Your task to perform on an android device: Do I have any events this weekend? Image 0: 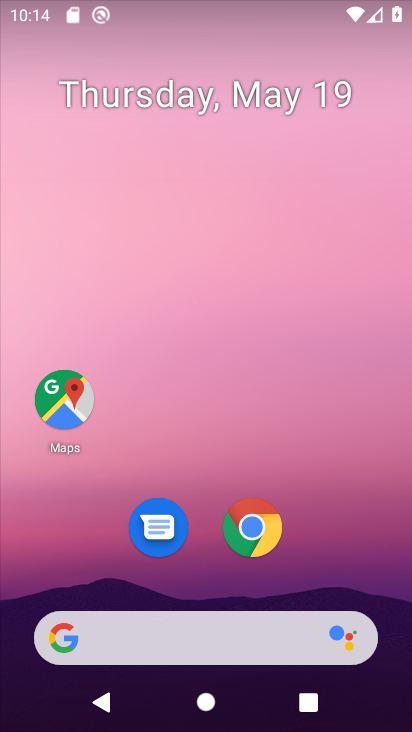
Step 0: drag from (377, 585) to (310, 174)
Your task to perform on an android device: Do I have any events this weekend? Image 1: 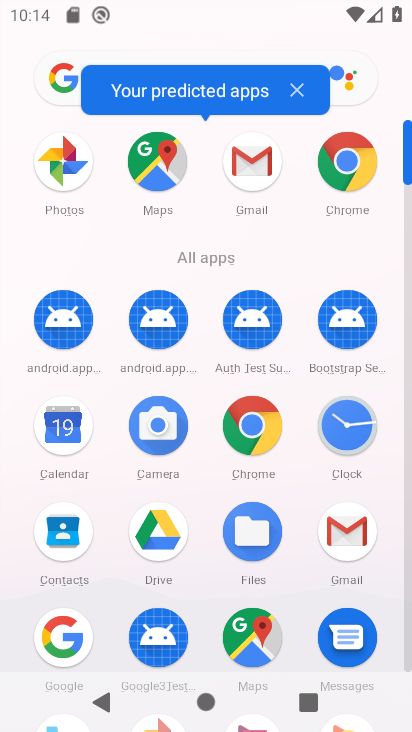
Step 1: click (50, 431)
Your task to perform on an android device: Do I have any events this weekend? Image 2: 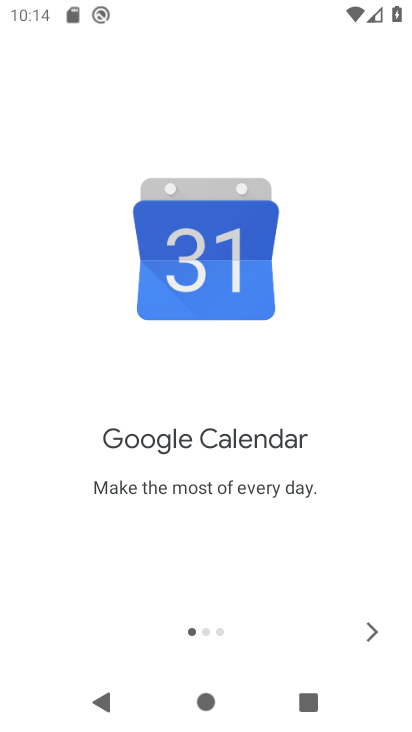
Step 2: click (376, 631)
Your task to perform on an android device: Do I have any events this weekend? Image 3: 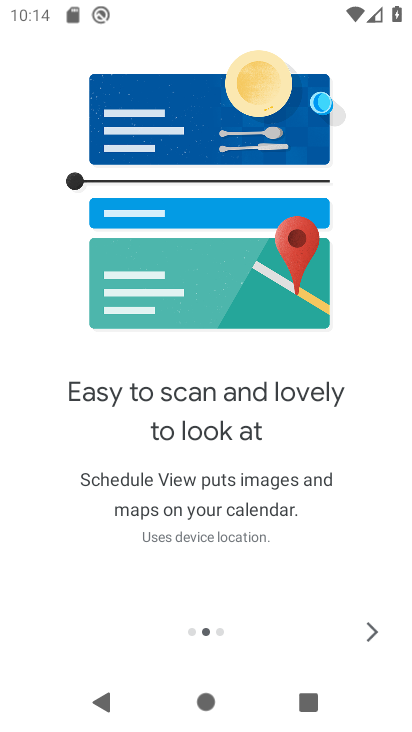
Step 3: click (376, 631)
Your task to perform on an android device: Do I have any events this weekend? Image 4: 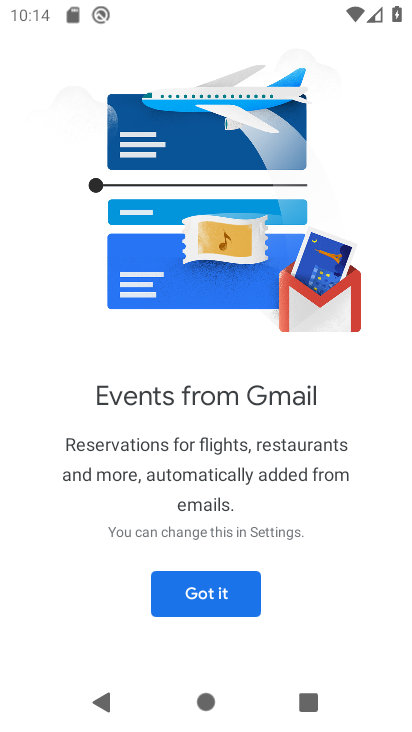
Step 4: click (376, 631)
Your task to perform on an android device: Do I have any events this weekend? Image 5: 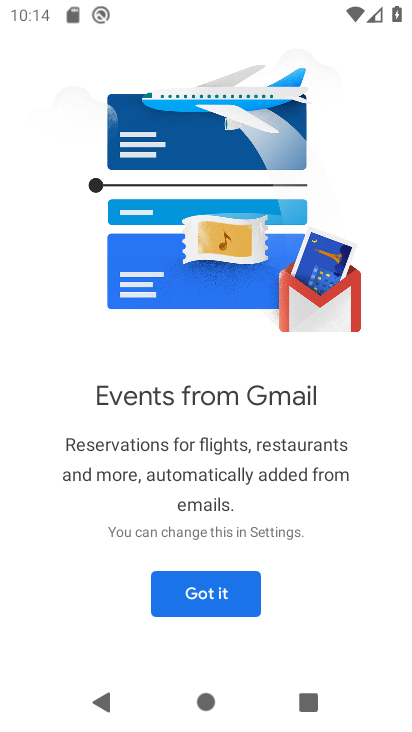
Step 5: click (231, 592)
Your task to perform on an android device: Do I have any events this weekend? Image 6: 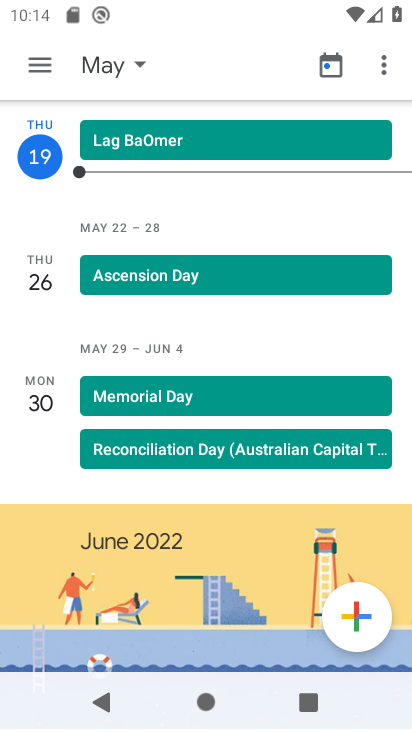
Step 6: click (39, 70)
Your task to perform on an android device: Do I have any events this weekend? Image 7: 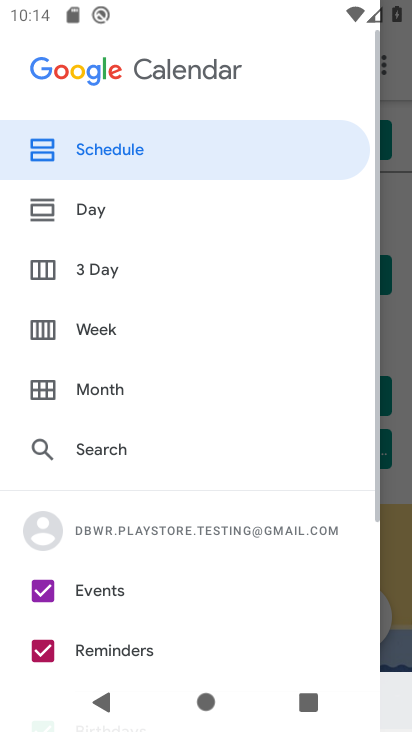
Step 7: click (124, 259)
Your task to perform on an android device: Do I have any events this weekend? Image 8: 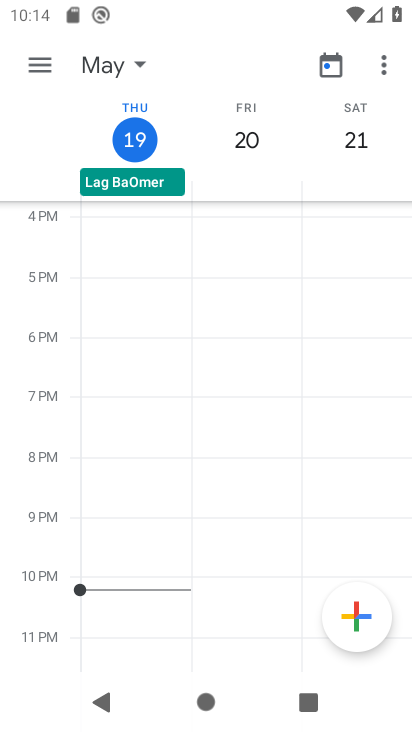
Step 8: click (122, 65)
Your task to perform on an android device: Do I have any events this weekend? Image 9: 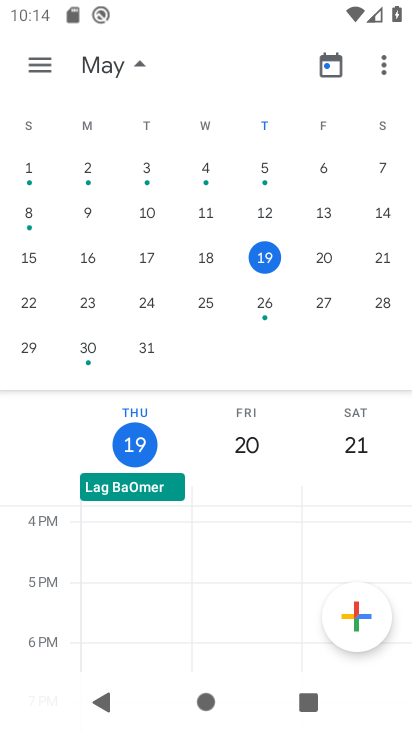
Step 9: click (386, 252)
Your task to perform on an android device: Do I have any events this weekend? Image 10: 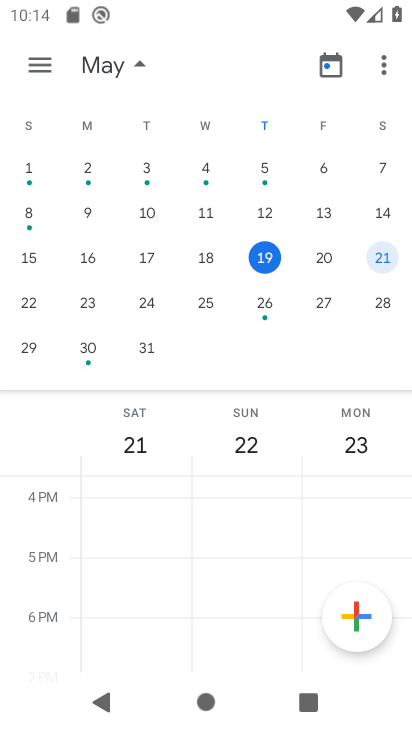
Step 10: click (118, 61)
Your task to perform on an android device: Do I have any events this weekend? Image 11: 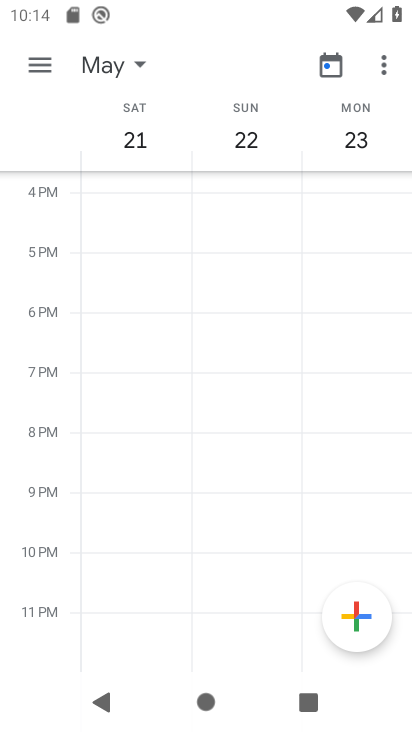
Step 11: task complete